Your task to perform on an android device: open wifi settings Image 0: 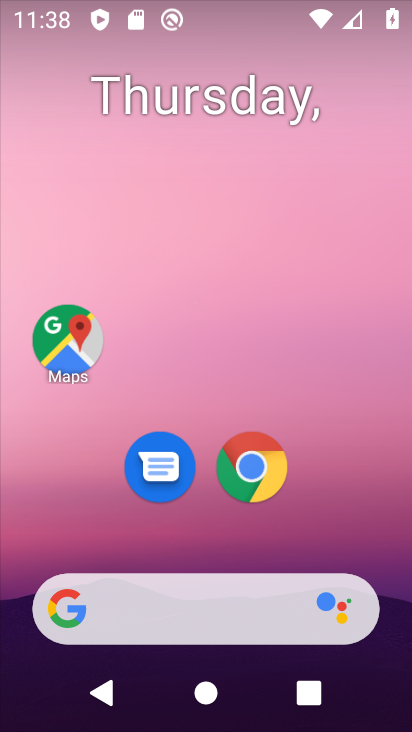
Step 0: drag from (338, 550) to (346, 5)
Your task to perform on an android device: open wifi settings Image 1: 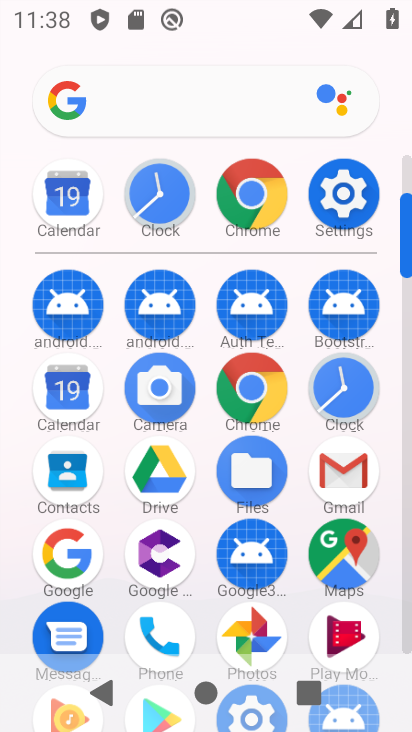
Step 1: click (346, 191)
Your task to perform on an android device: open wifi settings Image 2: 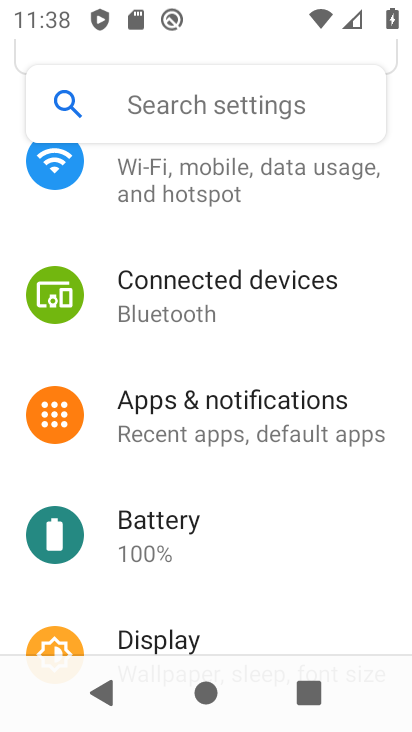
Step 2: drag from (344, 194) to (353, 340)
Your task to perform on an android device: open wifi settings Image 3: 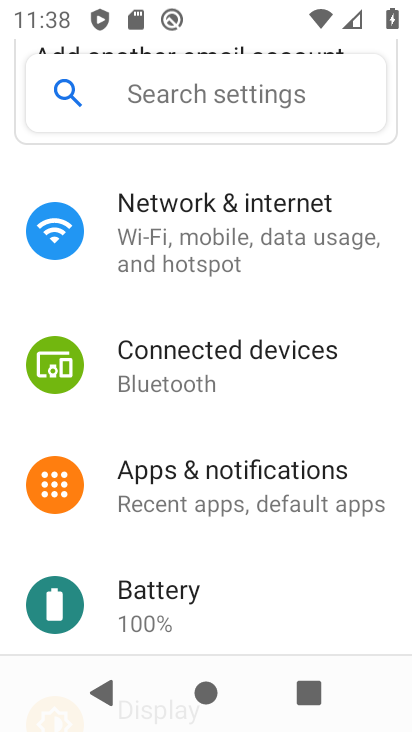
Step 3: click (111, 244)
Your task to perform on an android device: open wifi settings Image 4: 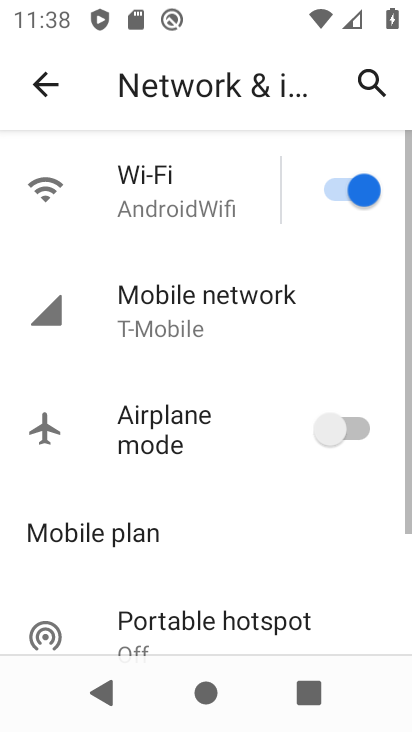
Step 4: click (84, 194)
Your task to perform on an android device: open wifi settings Image 5: 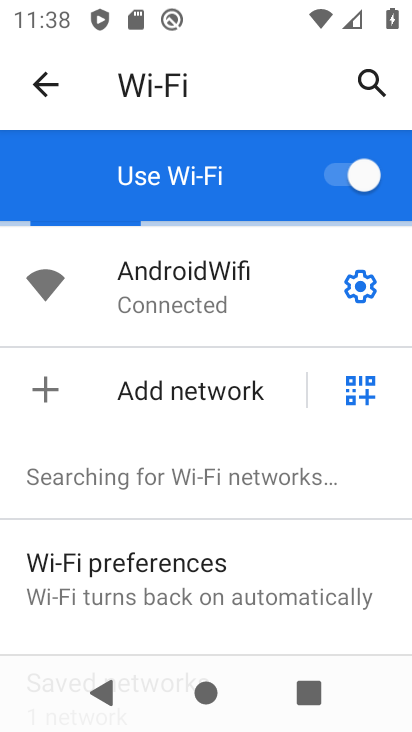
Step 5: task complete